Your task to perform on an android device: find snoozed emails in the gmail app Image 0: 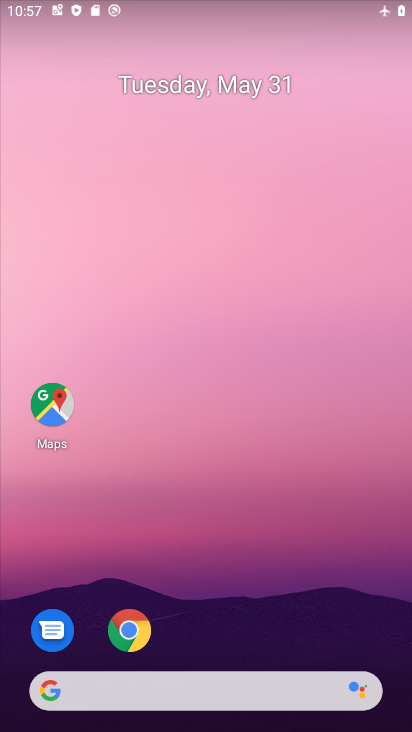
Step 0: drag from (191, 672) to (211, 282)
Your task to perform on an android device: find snoozed emails in the gmail app Image 1: 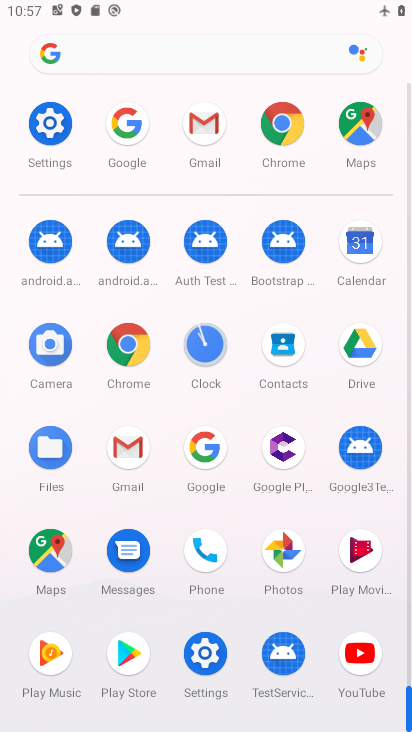
Step 1: click (141, 465)
Your task to perform on an android device: find snoozed emails in the gmail app Image 2: 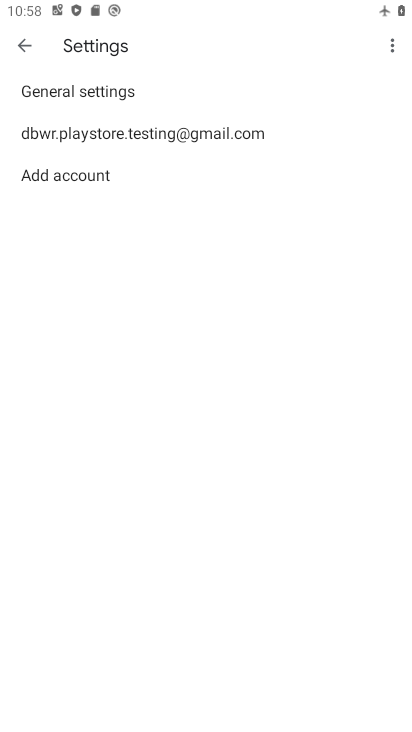
Step 2: task complete